Your task to perform on an android device: turn vacation reply on in the gmail app Image 0: 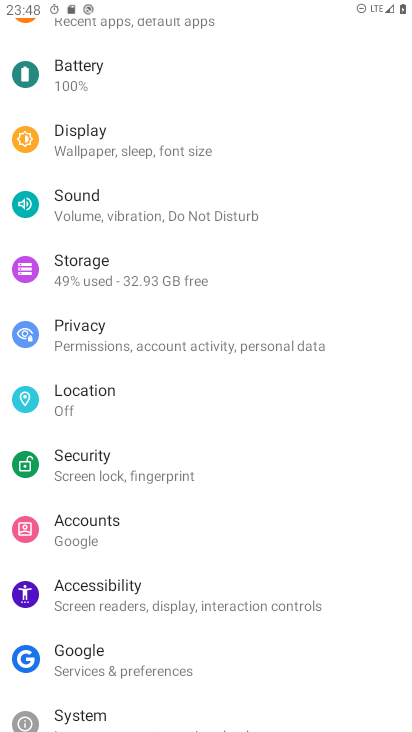
Step 0: press home button
Your task to perform on an android device: turn vacation reply on in the gmail app Image 1: 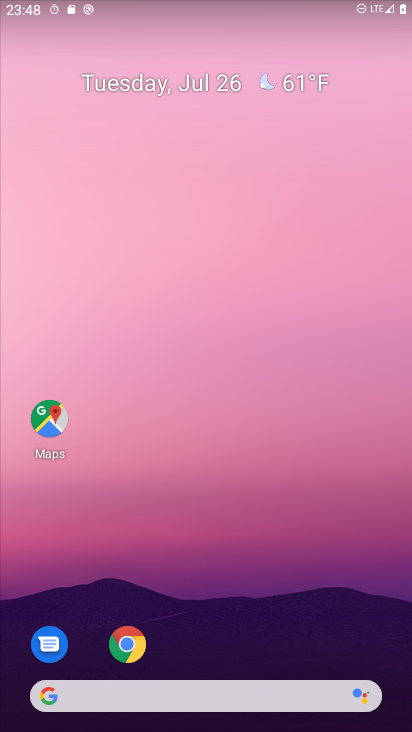
Step 1: drag from (222, 642) to (226, 31)
Your task to perform on an android device: turn vacation reply on in the gmail app Image 2: 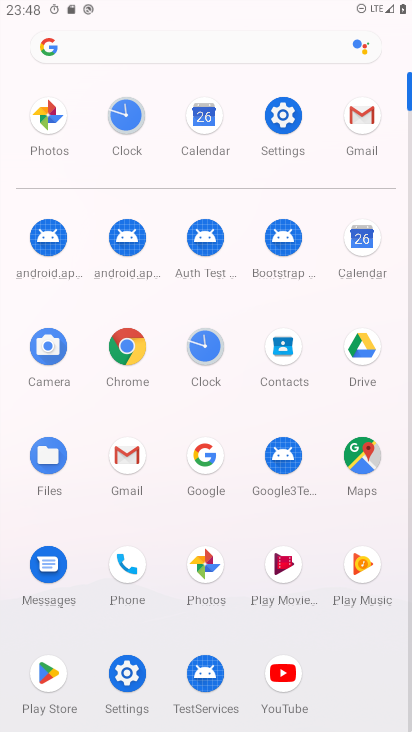
Step 2: click (358, 120)
Your task to perform on an android device: turn vacation reply on in the gmail app Image 3: 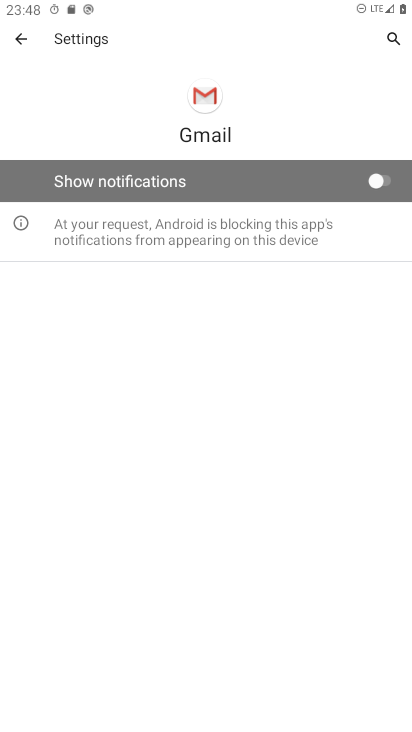
Step 3: click (13, 42)
Your task to perform on an android device: turn vacation reply on in the gmail app Image 4: 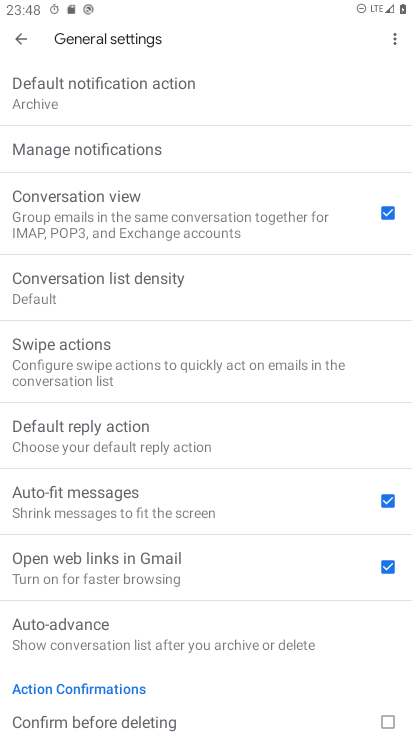
Step 4: click (25, 49)
Your task to perform on an android device: turn vacation reply on in the gmail app Image 5: 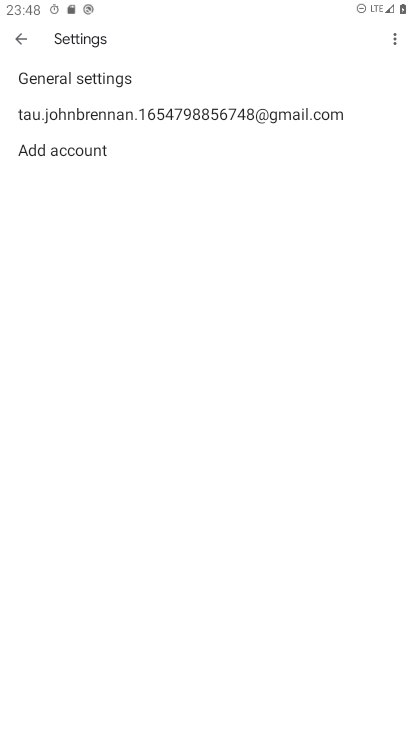
Step 5: click (47, 104)
Your task to perform on an android device: turn vacation reply on in the gmail app Image 6: 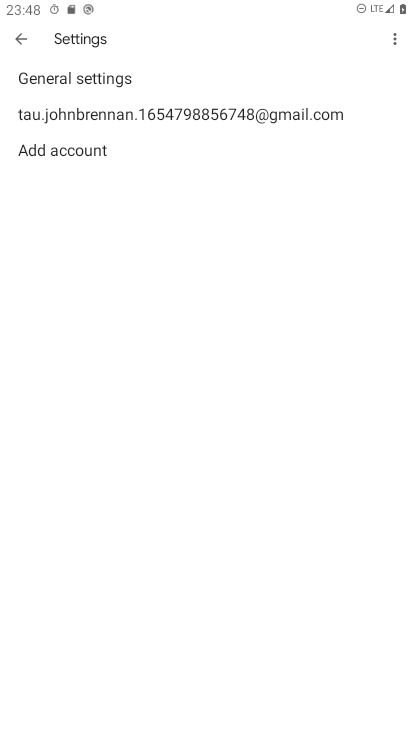
Step 6: click (56, 114)
Your task to perform on an android device: turn vacation reply on in the gmail app Image 7: 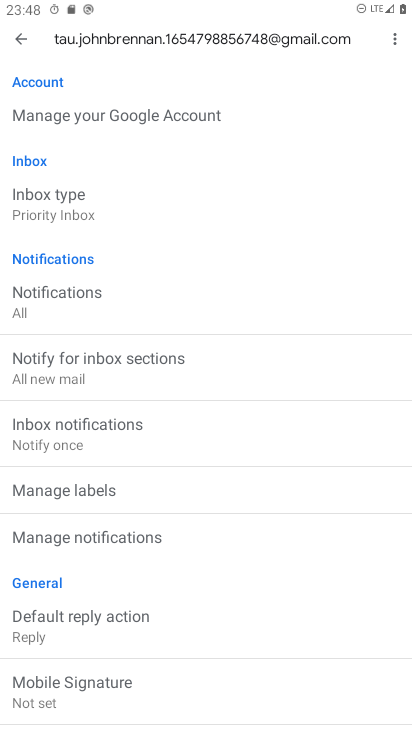
Step 7: drag from (188, 508) to (195, 106)
Your task to perform on an android device: turn vacation reply on in the gmail app Image 8: 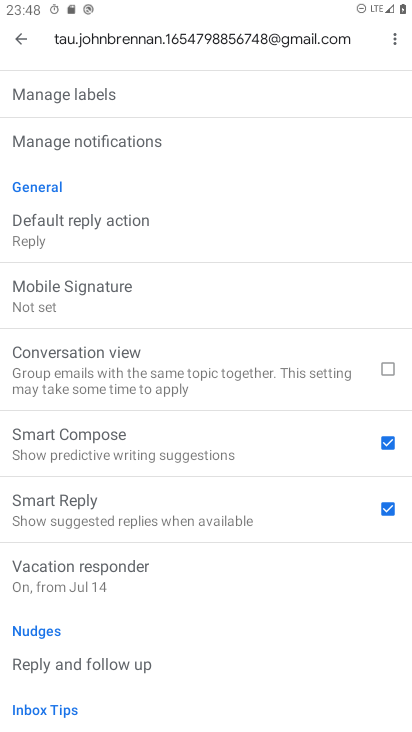
Step 8: click (73, 583)
Your task to perform on an android device: turn vacation reply on in the gmail app Image 9: 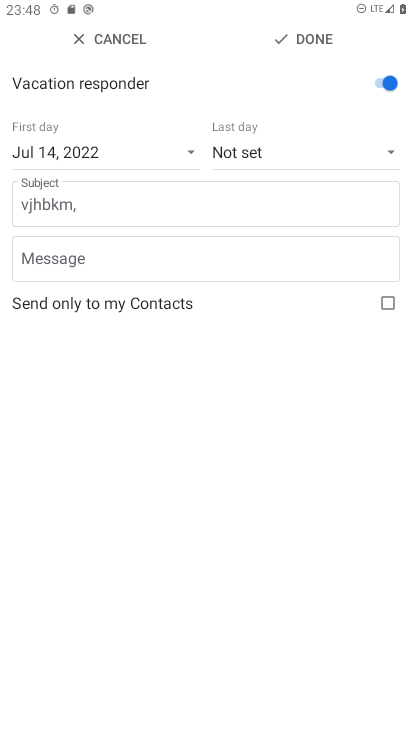
Step 9: click (302, 40)
Your task to perform on an android device: turn vacation reply on in the gmail app Image 10: 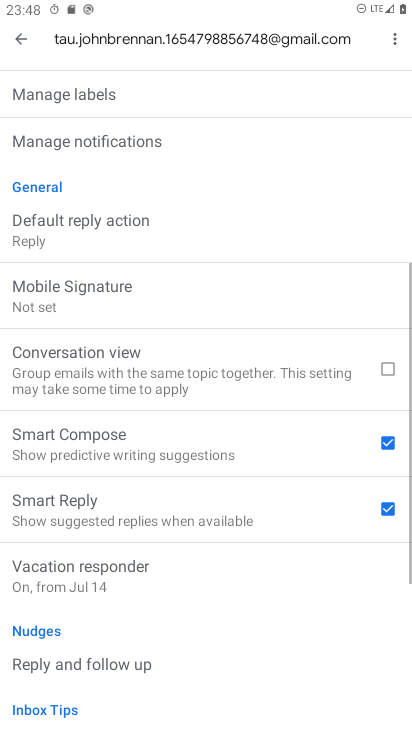
Step 10: task complete